Your task to perform on an android device: Who is the prime minister of the United Kingdom? Image 0: 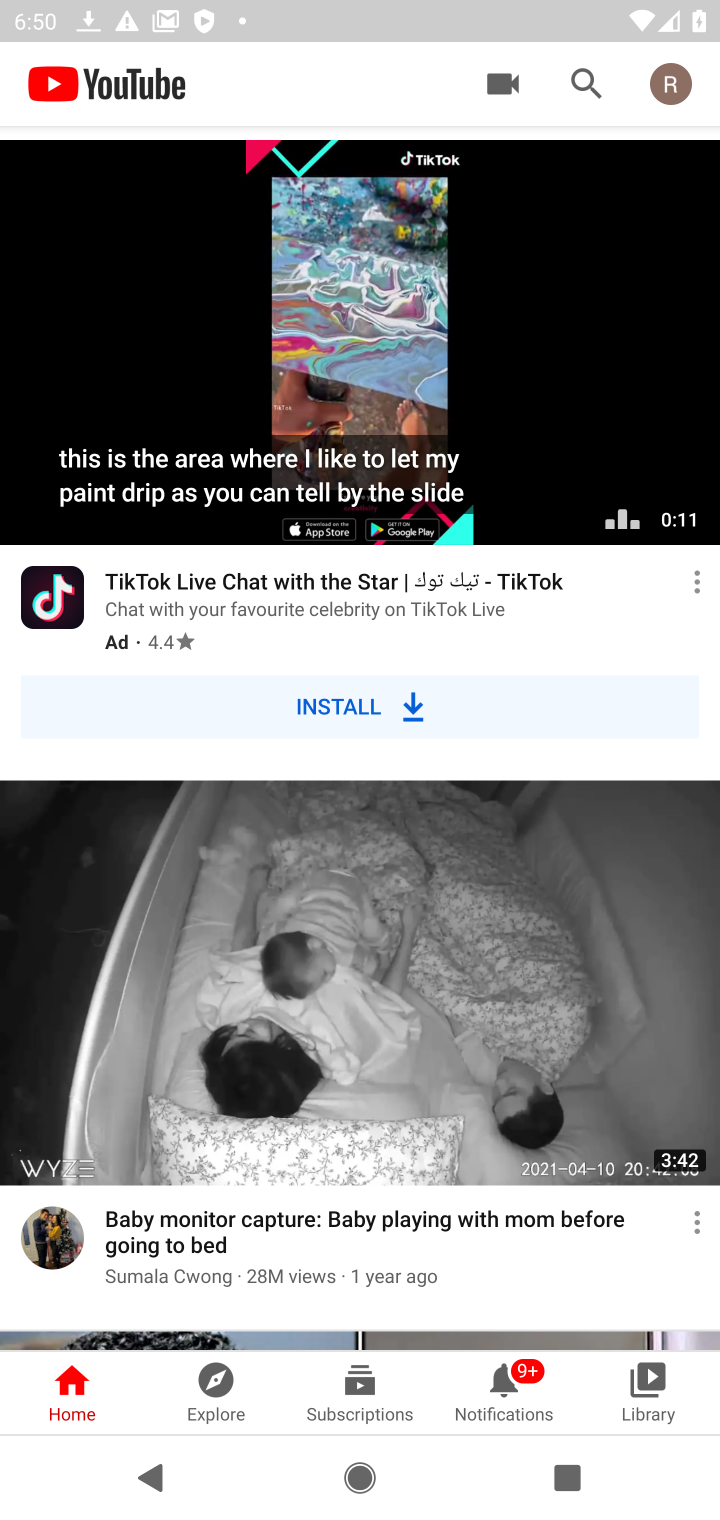
Step 0: press home button
Your task to perform on an android device: Who is the prime minister of the United Kingdom? Image 1: 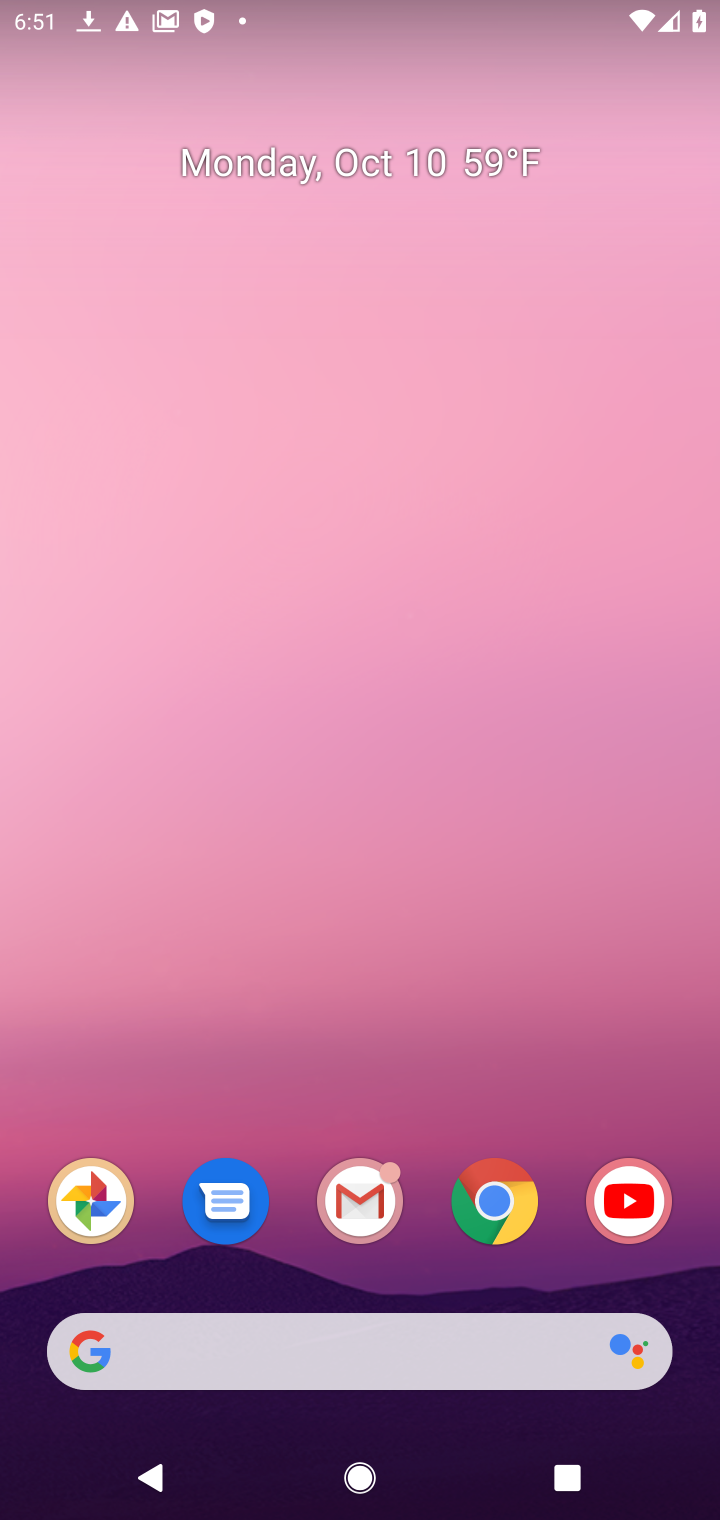
Step 1: drag from (272, 917) to (255, 90)
Your task to perform on an android device: Who is the prime minister of the United Kingdom? Image 2: 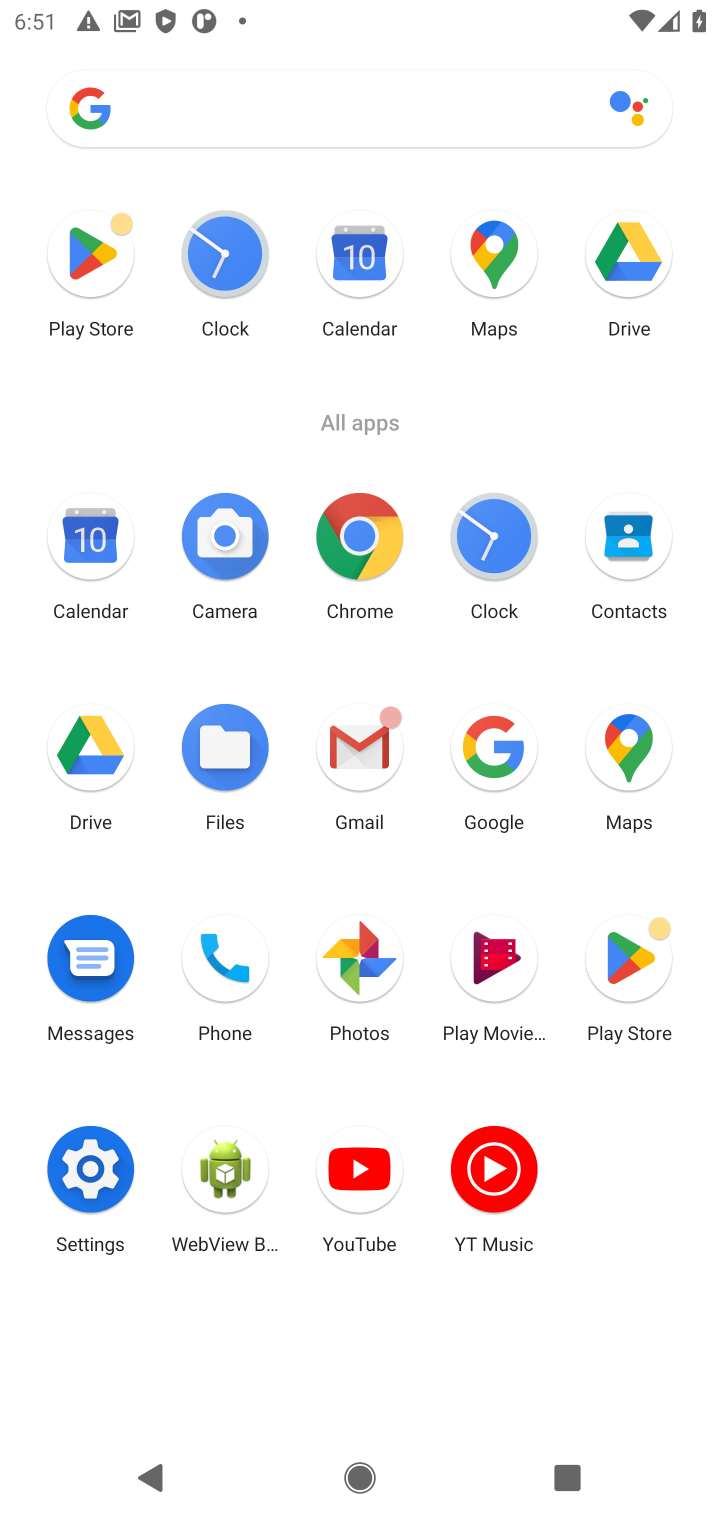
Step 2: click (491, 775)
Your task to perform on an android device: Who is the prime minister of the United Kingdom? Image 3: 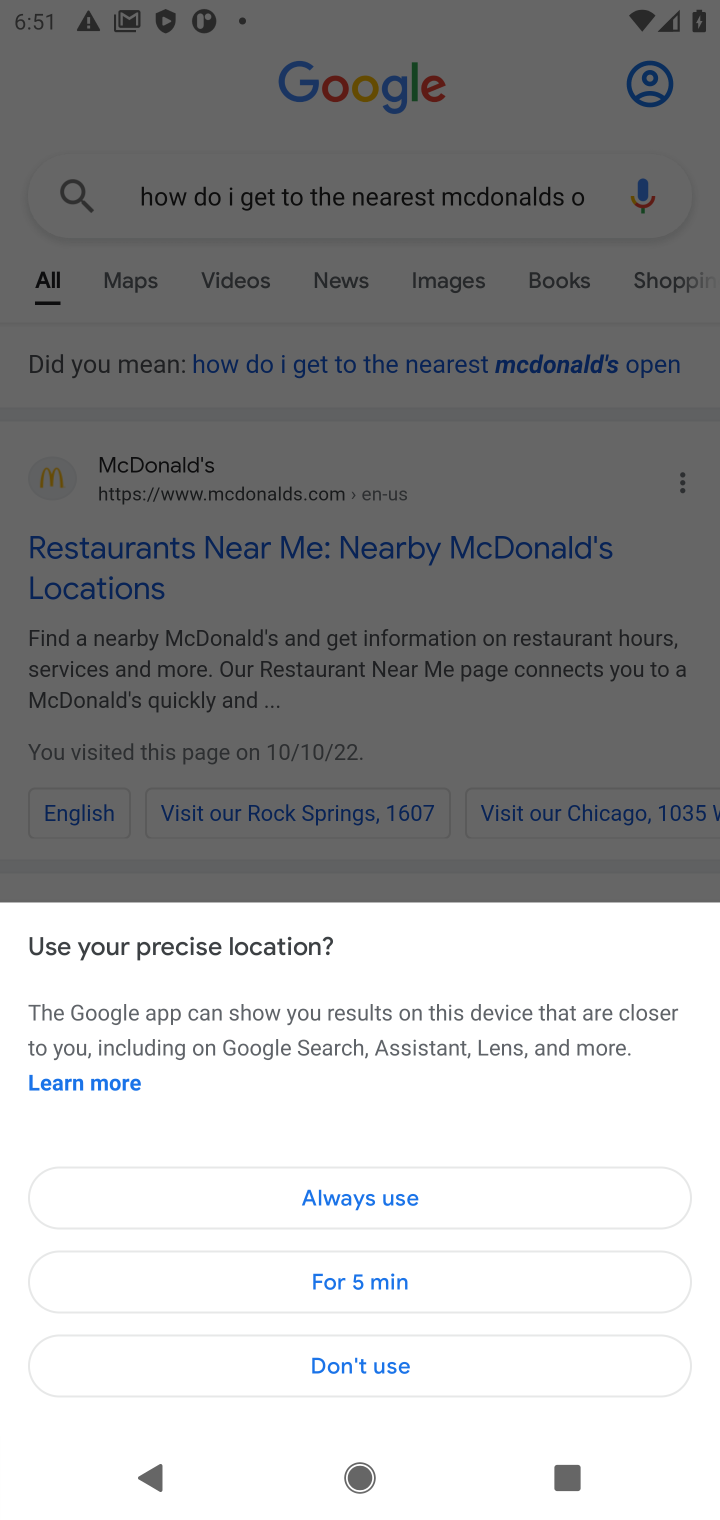
Step 3: click (562, 210)
Your task to perform on an android device: Who is the prime minister of the United Kingdom? Image 4: 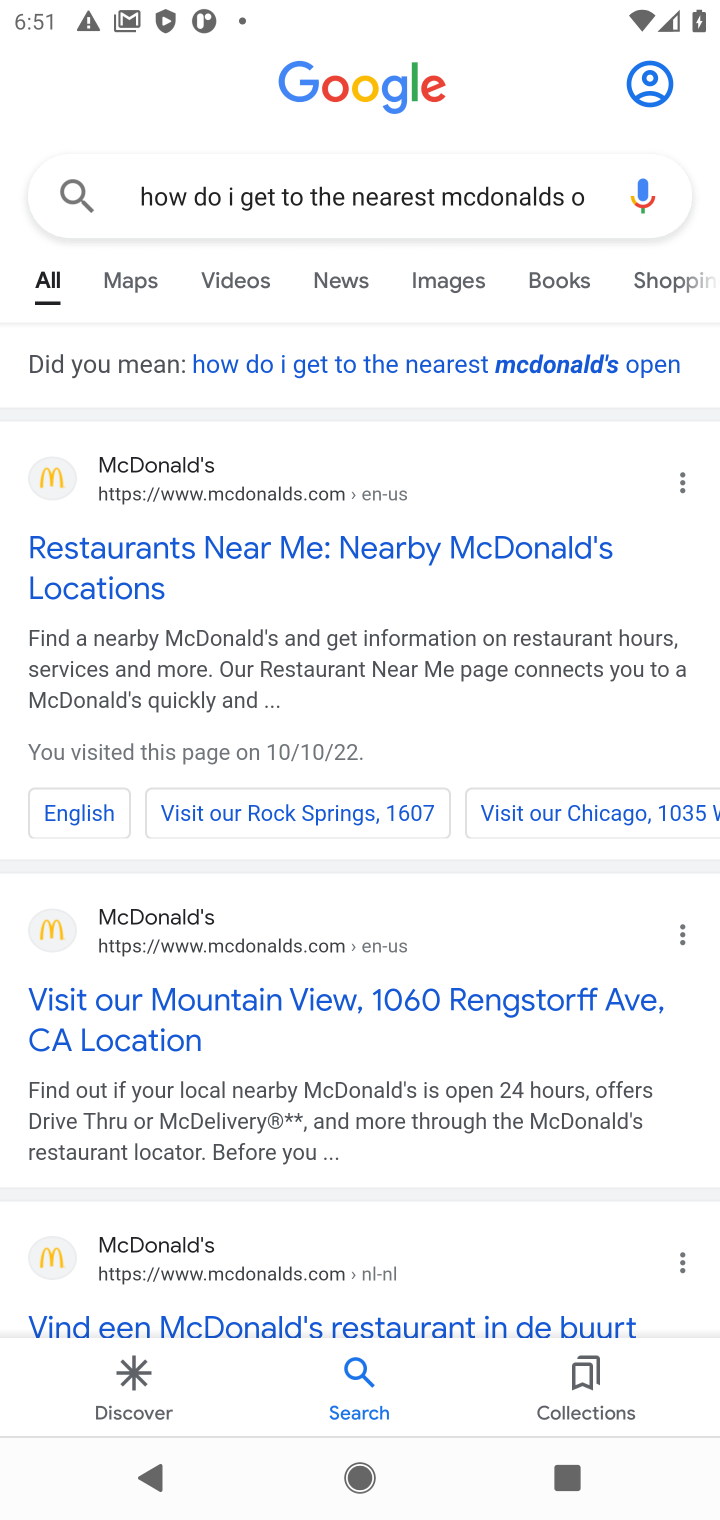
Step 4: click (557, 187)
Your task to perform on an android device: Who is the prime minister of the United Kingdom? Image 5: 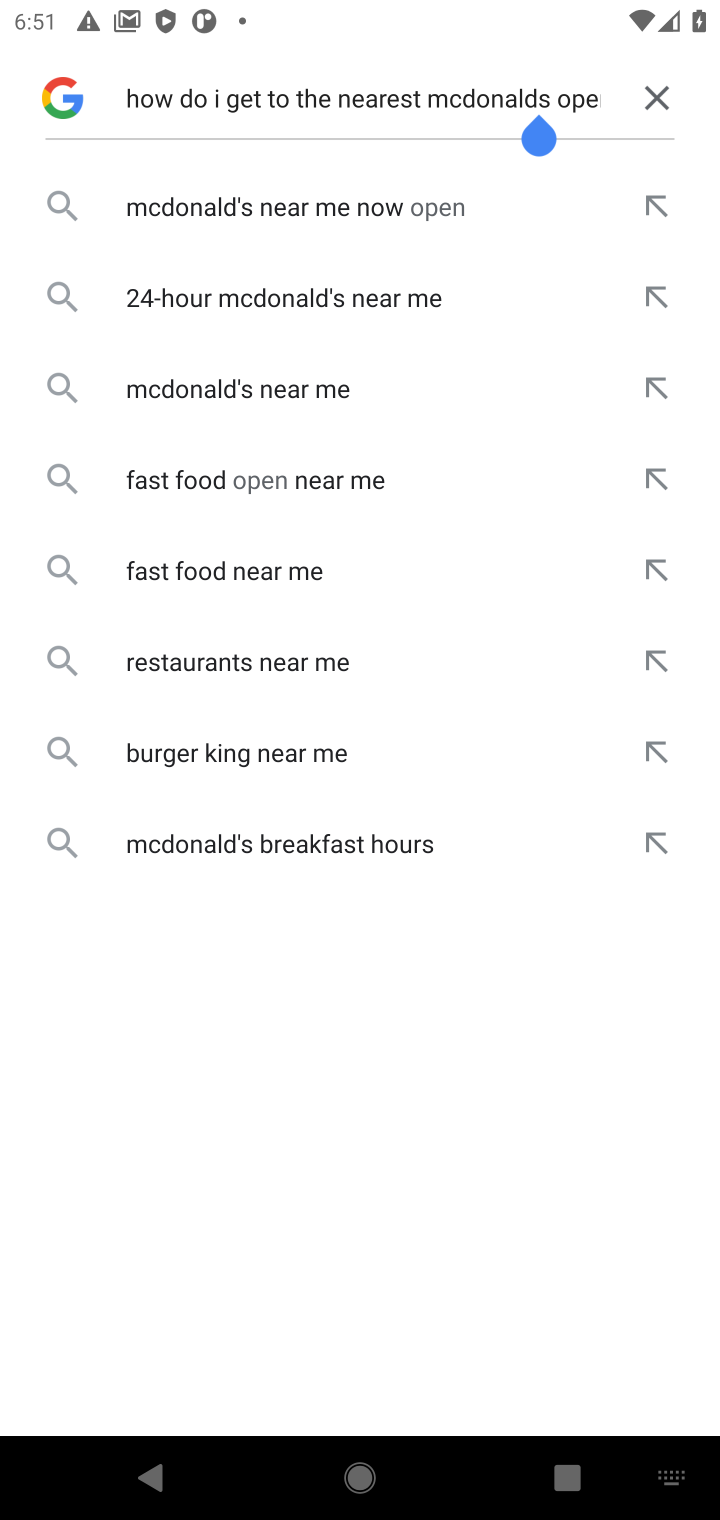
Step 5: click (664, 99)
Your task to perform on an android device: Who is the prime minister of the United Kingdom? Image 6: 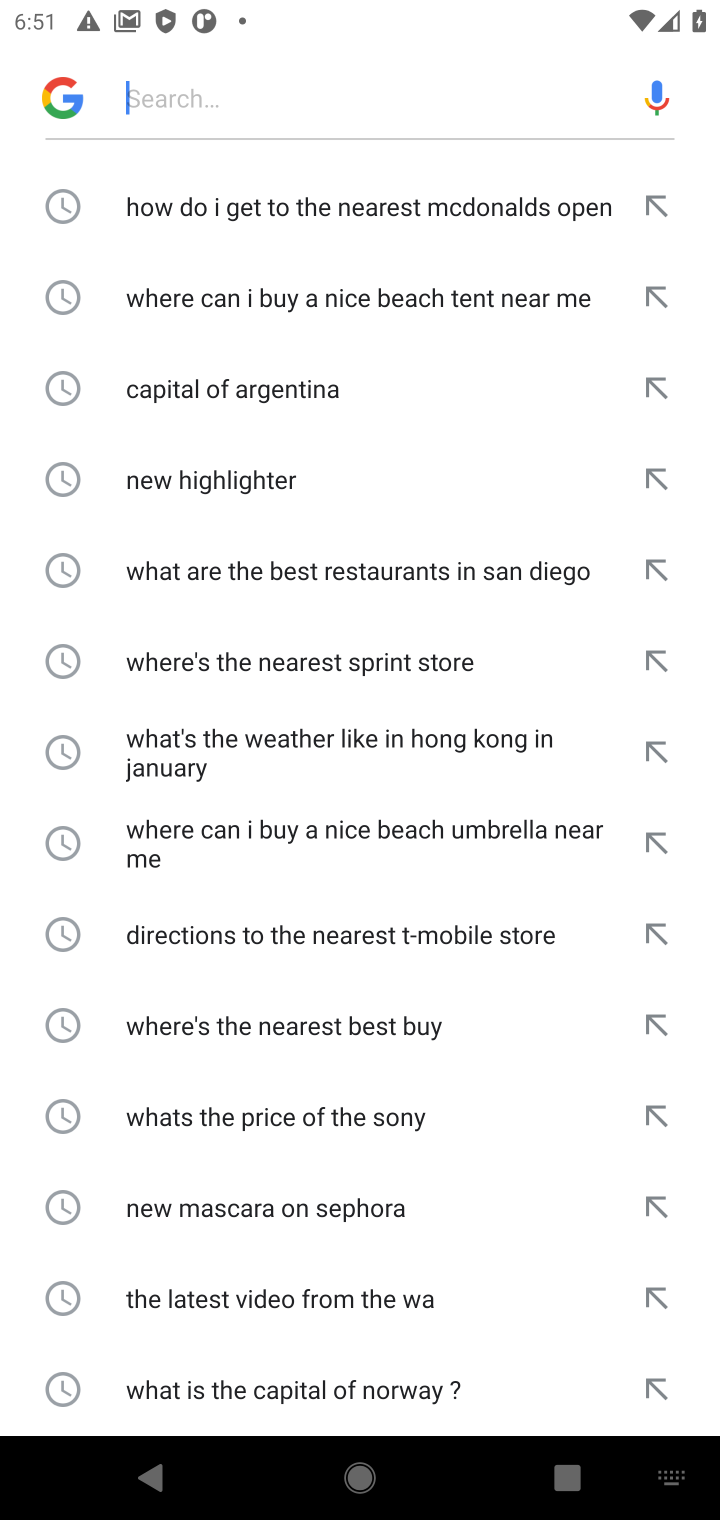
Step 6: type "Who is the prime minister of the United Kingdom?"
Your task to perform on an android device: Who is the prime minister of the United Kingdom? Image 7: 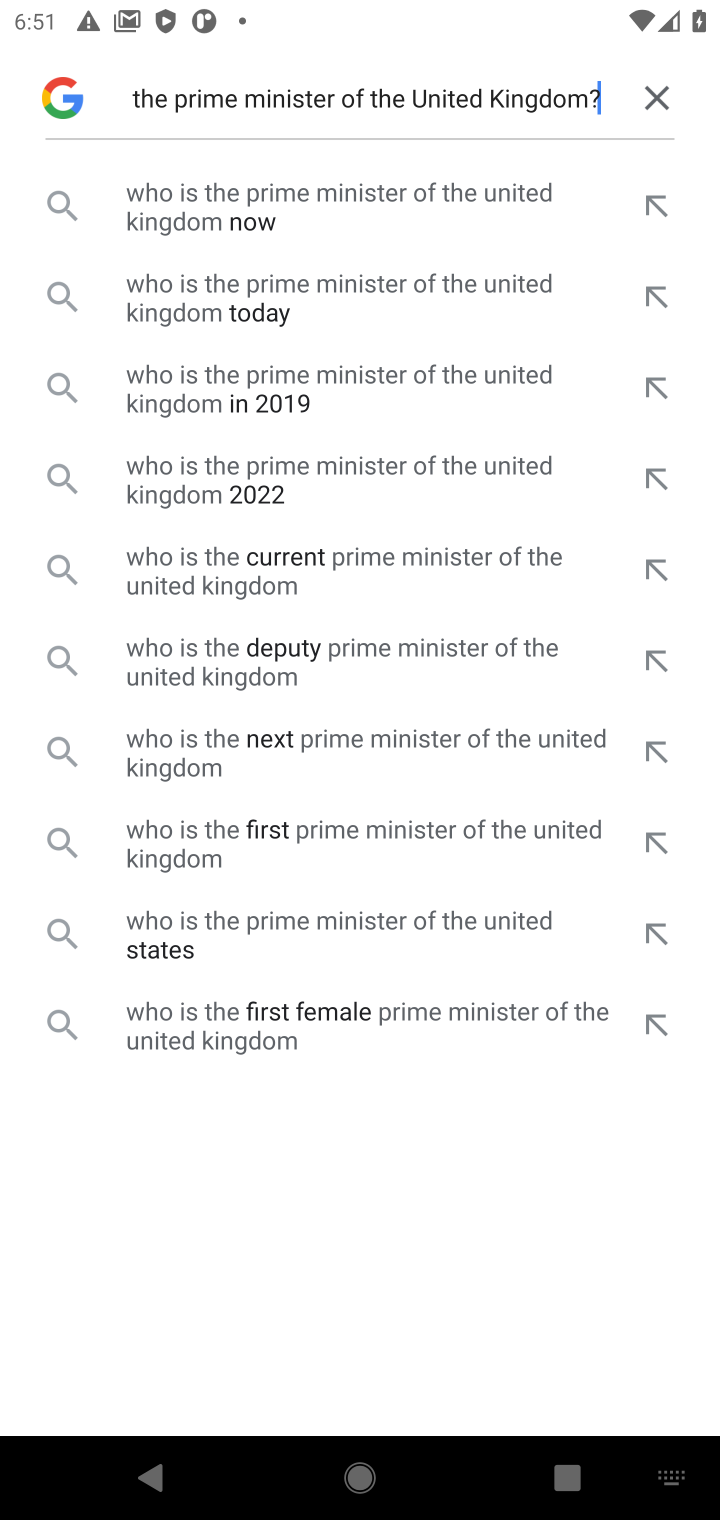
Step 7: click (371, 204)
Your task to perform on an android device: Who is the prime minister of the United Kingdom? Image 8: 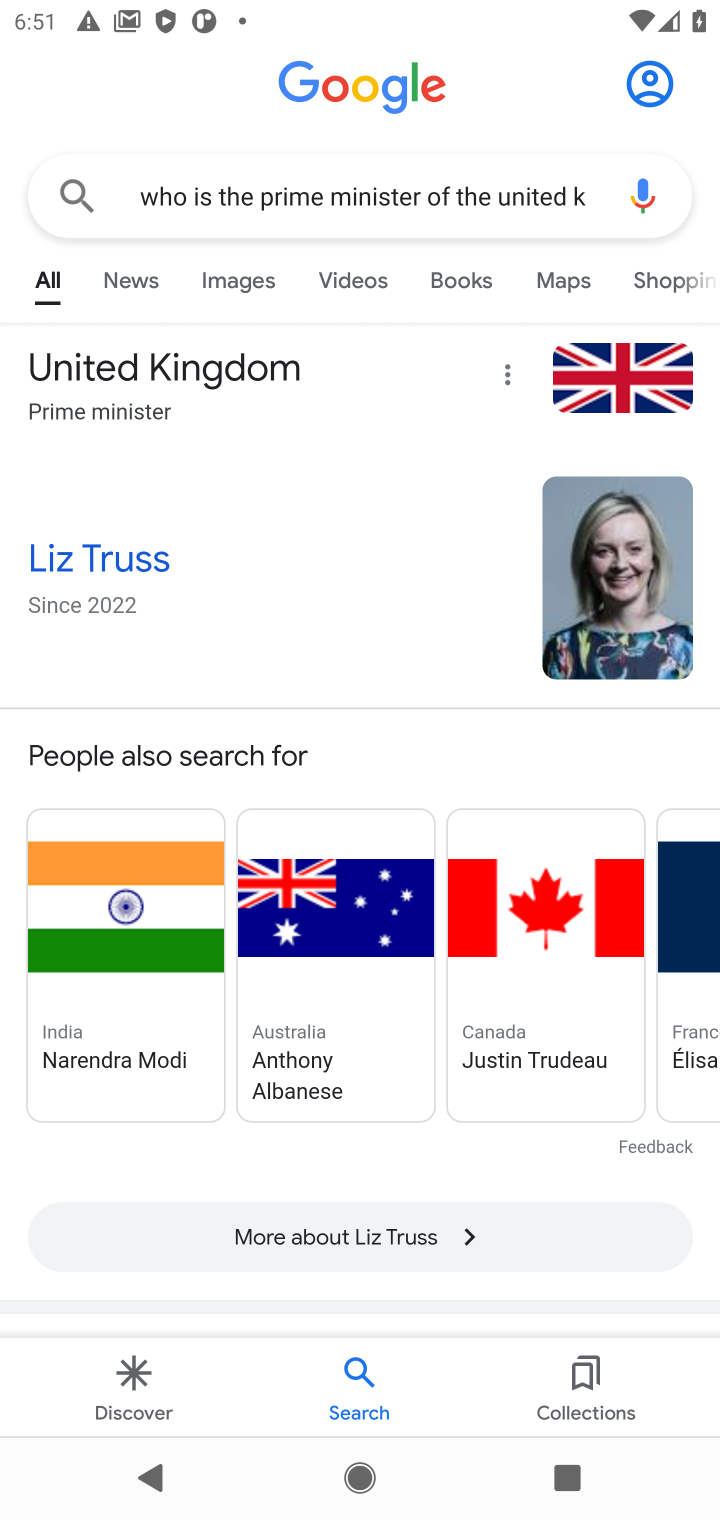
Step 8: task complete